Your task to perform on an android device: Open the phone app and click the voicemail tab. Image 0: 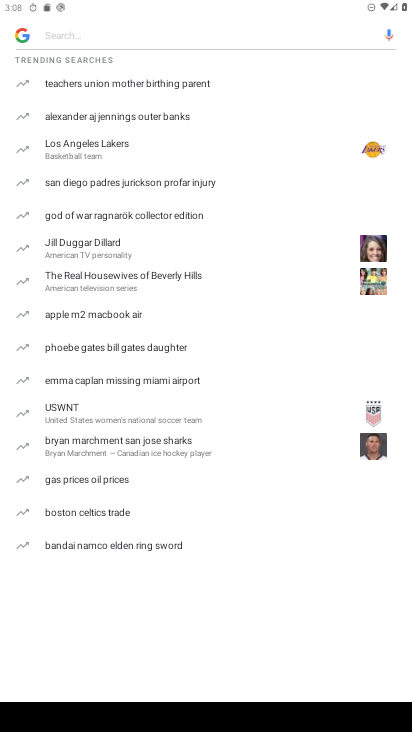
Step 0: press home button
Your task to perform on an android device: Open the phone app and click the voicemail tab. Image 1: 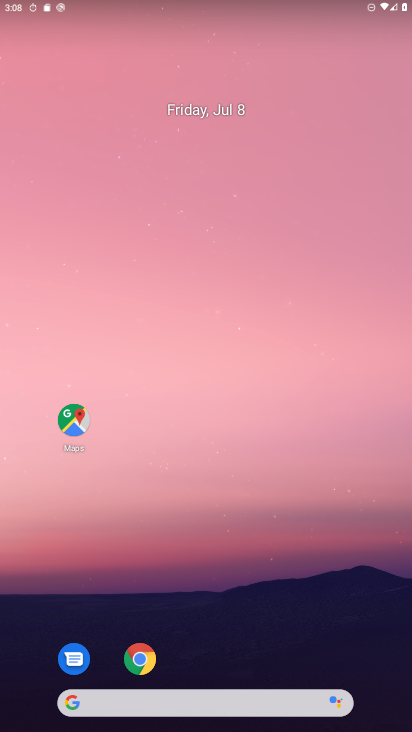
Step 1: drag from (215, 628) to (223, 91)
Your task to perform on an android device: Open the phone app and click the voicemail tab. Image 2: 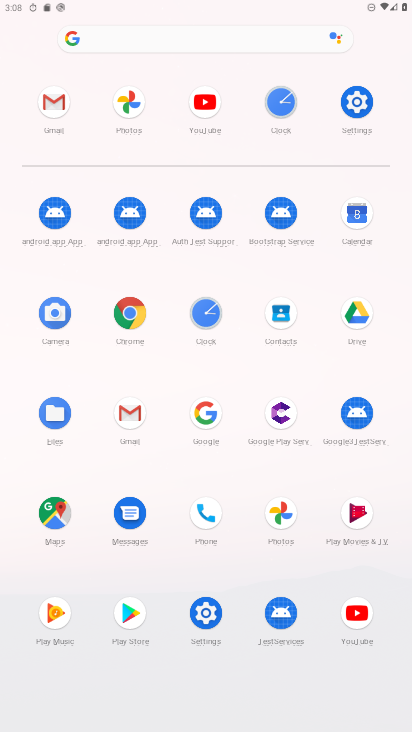
Step 2: click (205, 516)
Your task to perform on an android device: Open the phone app and click the voicemail tab. Image 3: 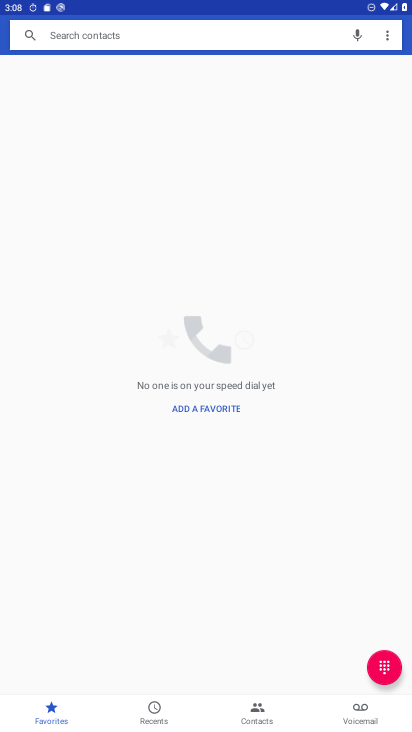
Step 3: click (359, 710)
Your task to perform on an android device: Open the phone app and click the voicemail tab. Image 4: 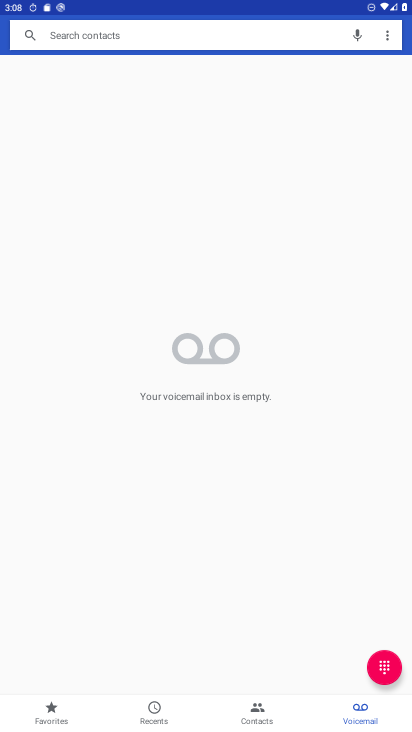
Step 4: task complete